Your task to perform on an android device: See recent photos Image 0: 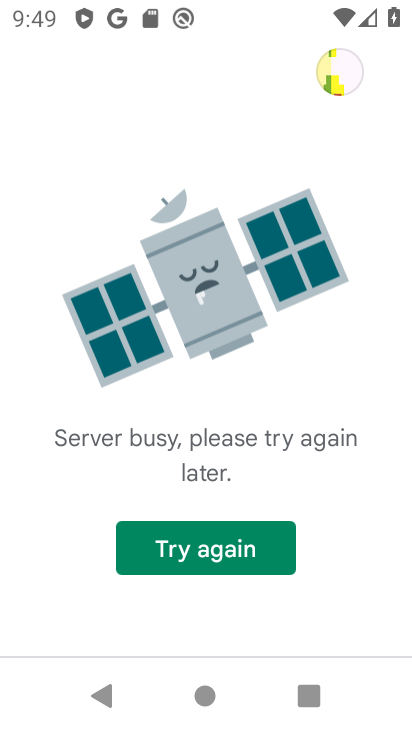
Step 0: task impossible